Your task to perform on an android device: move a message to another label in the gmail app Image 0: 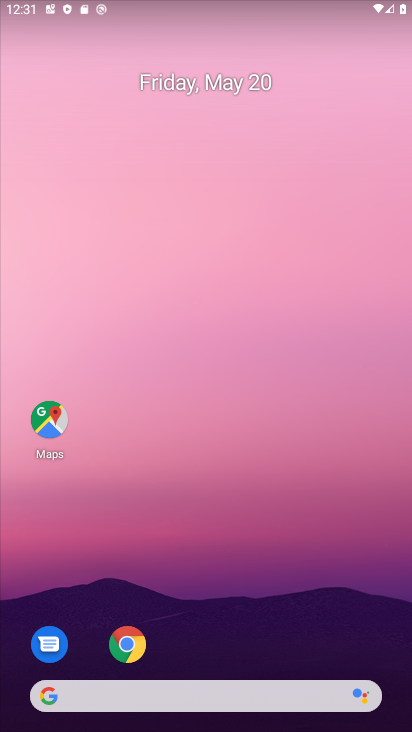
Step 0: drag from (298, 601) to (281, 53)
Your task to perform on an android device: move a message to another label in the gmail app Image 1: 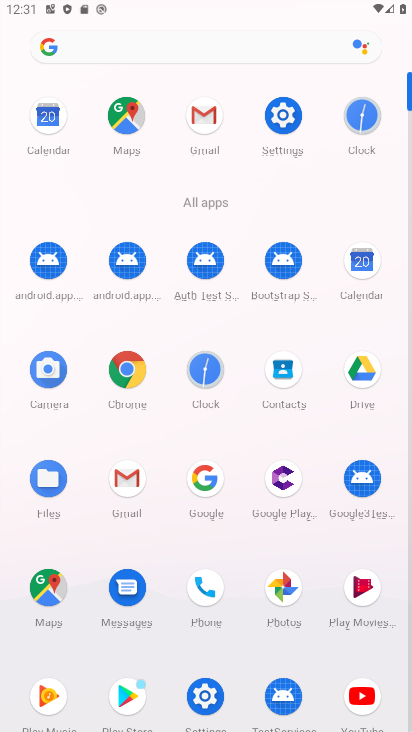
Step 1: click (203, 124)
Your task to perform on an android device: move a message to another label in the gmail app Image 2: 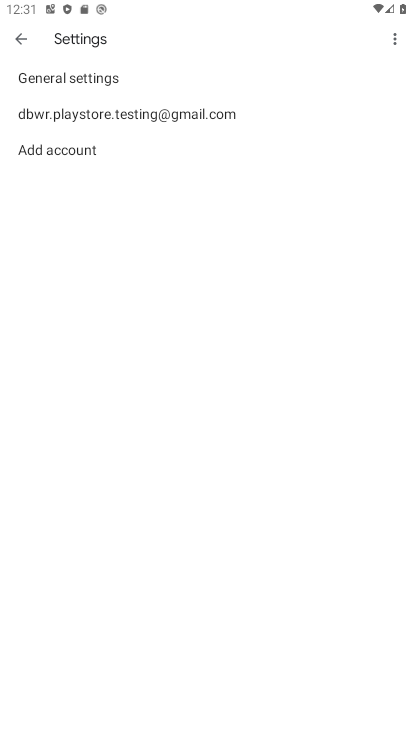
Step 2: click (24, 38)
Your task to perform on an android device: move a message to another label in the gmail app Image 3: 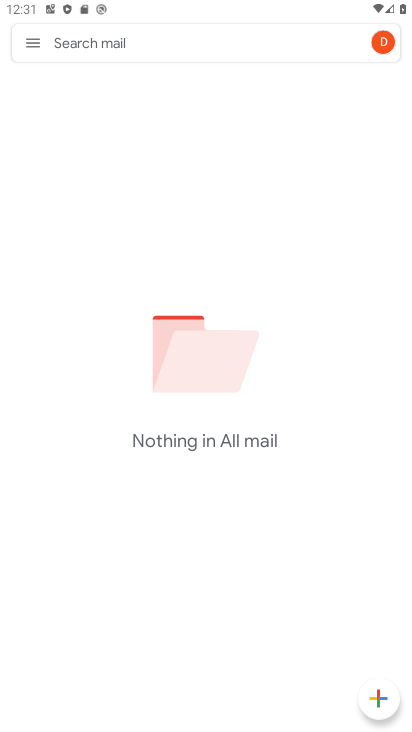
Step 3: click (33, 44)
Your task to perform on an android device: move a message to another label in the gmail app Image 4: 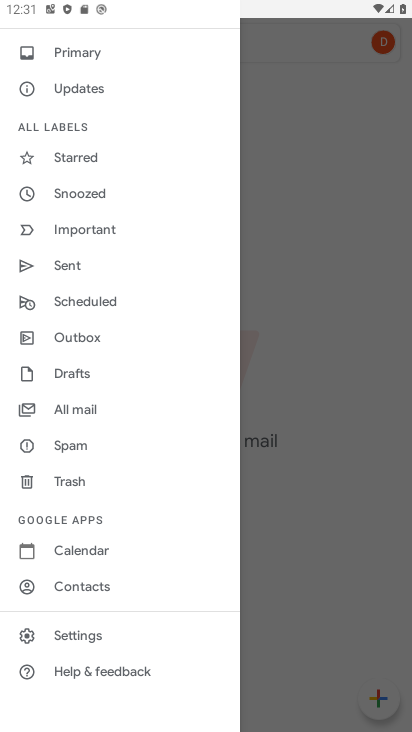
Step 4: click (85, 413)
Your task to perform on an android device: move a message to another label in the gmail app Image 5: 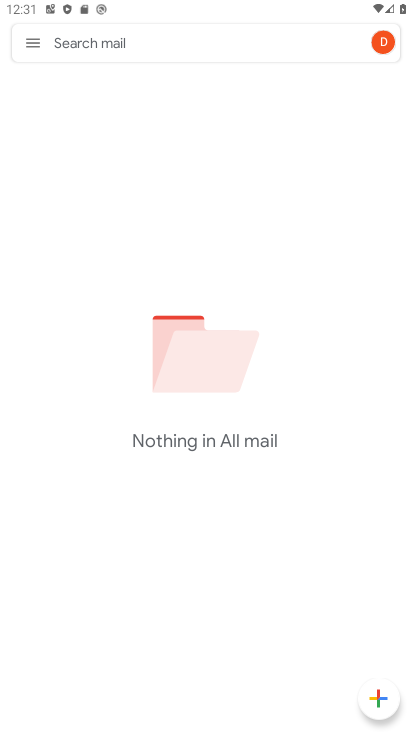
Step 5: task complete